Your task to perform on an android device: Toggle the flashlight Image 0: 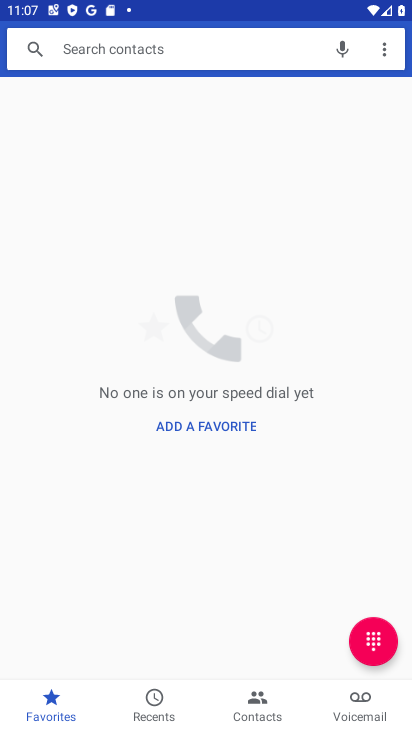
Step 0: press home button
Your task to perform on an android device: Toggle the flashlight Image 1: 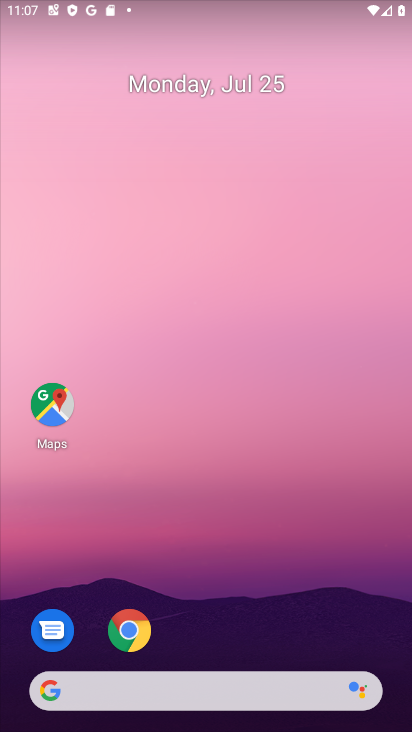
Step 1: task complete